Your task to perform on an android device: add a contact Image 0: 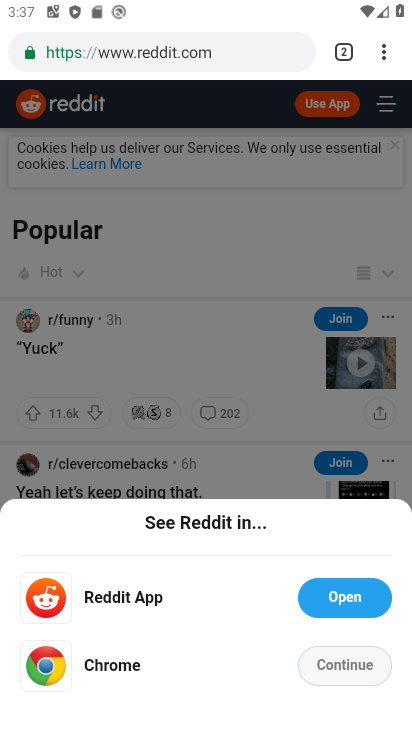
Step 0: press home button
Your task to perform on an android device: add a contact Image 1: 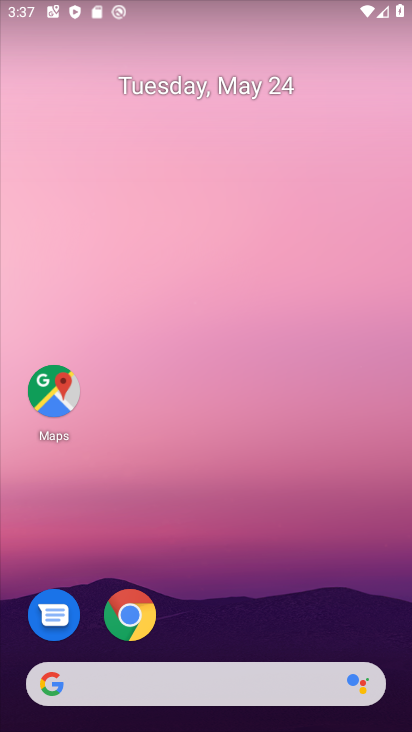
Step 1: drag from (220, 729) to (136, 111)
Your task to perform on an android device: add a contact Image 2: 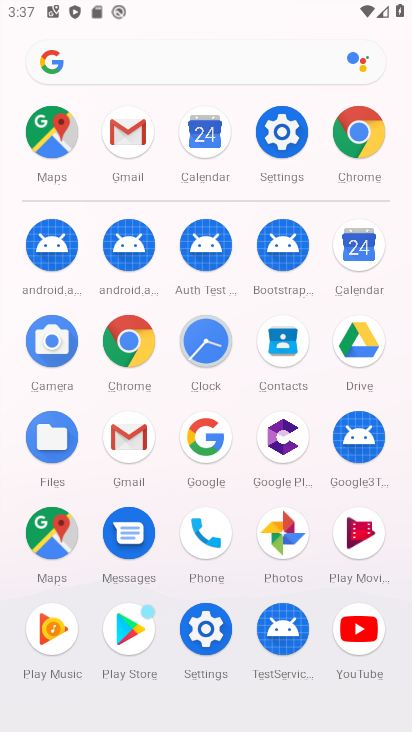
Step 2: click (282, 341)
Your task to perform on an android device: add a contact Image 3: 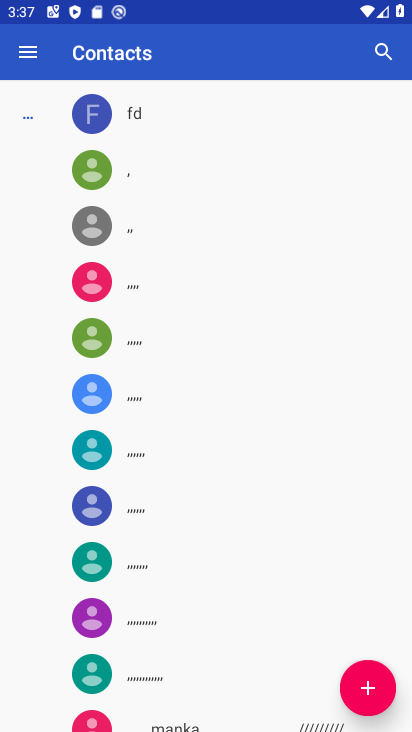
Step 3: click (374, 687)
Your task to perform on an android device: add a contact Image 4: 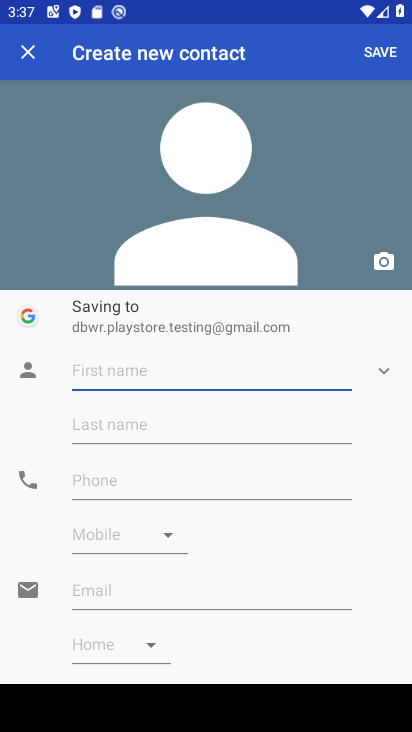
Step 4: type "lankathi ravan"
Your task to perform on an android device: add a contact Image 5: 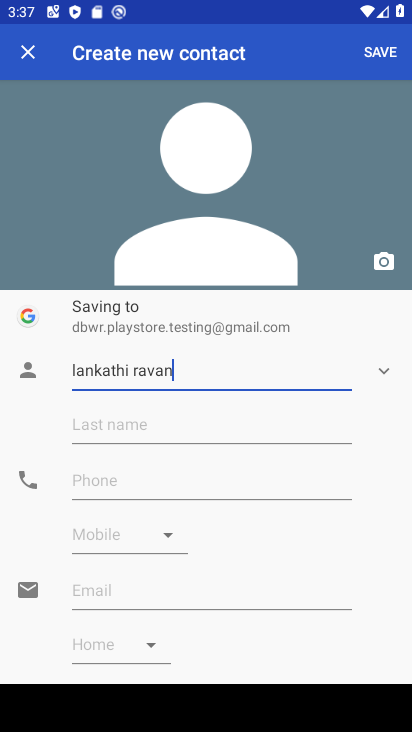
Step 5: click (124, 478)
Your task to perform on an android device: add a contact Image 6: 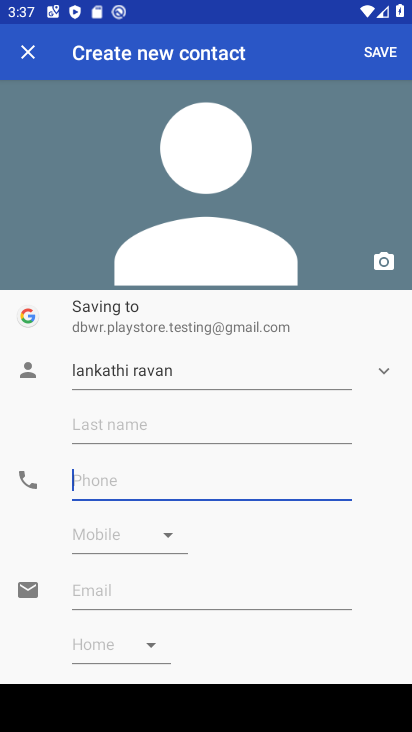
Step 6: type "666"
Your task to perform on an android device: add a contact Image 7: 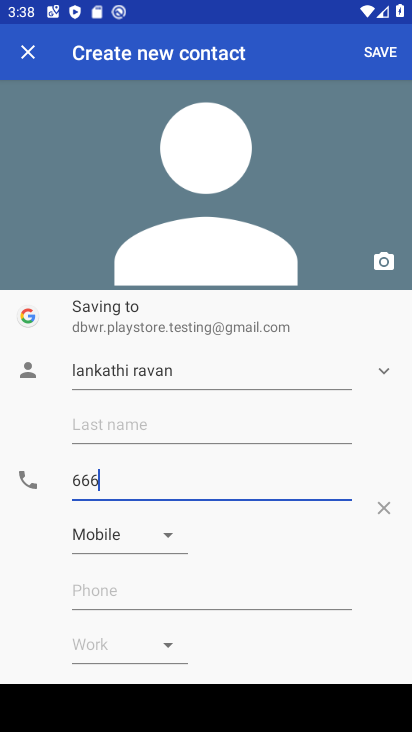
Step 7: click (381, 53)
Your task to perform on an android device: add a contact Image 8: 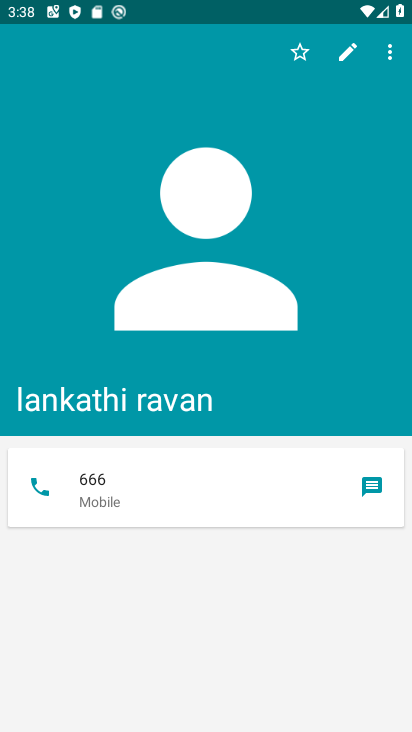
Step 8: task complete